Your task to perform on an android device: Open Chrome and go to the settings page Image 0: 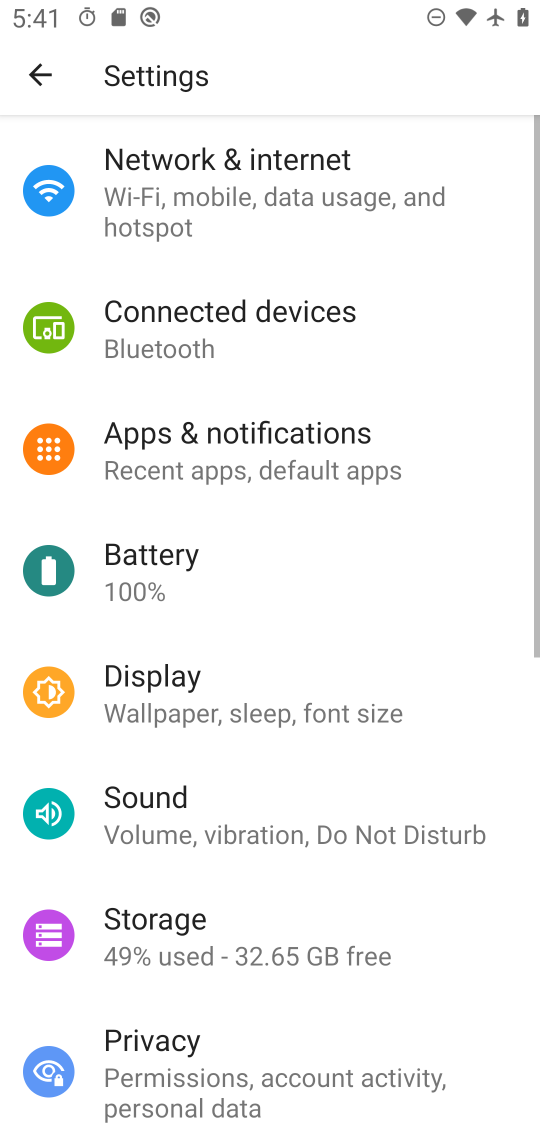
Step 0: press home button
Your task to perform on an android device: Open Chrome and go to the settings page Image 1: 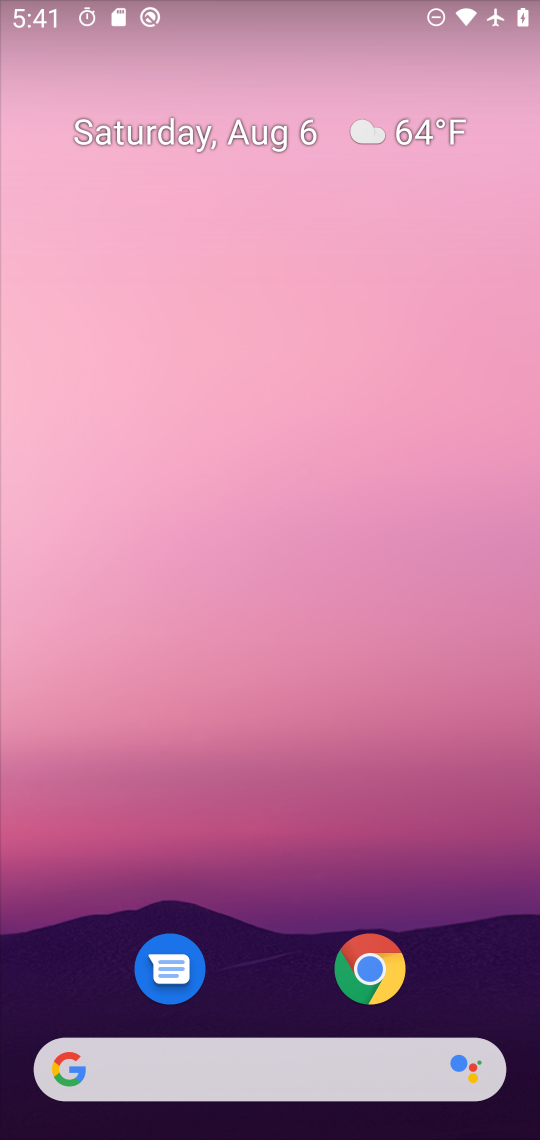
Step 1: drag from (305, 985) to (451, 384)
Your task to perform on an android device: Open Chrome and go to the settings page Image 2: 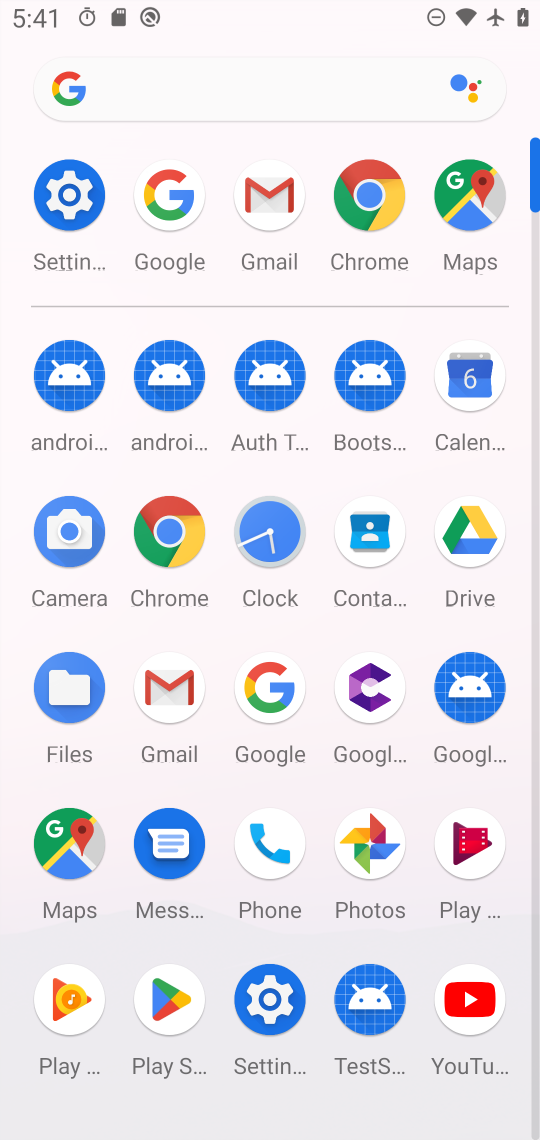
Step 2: click (369, 197)
Your task to perform on an android device: Open Chrome and go to the settings page Image 3: 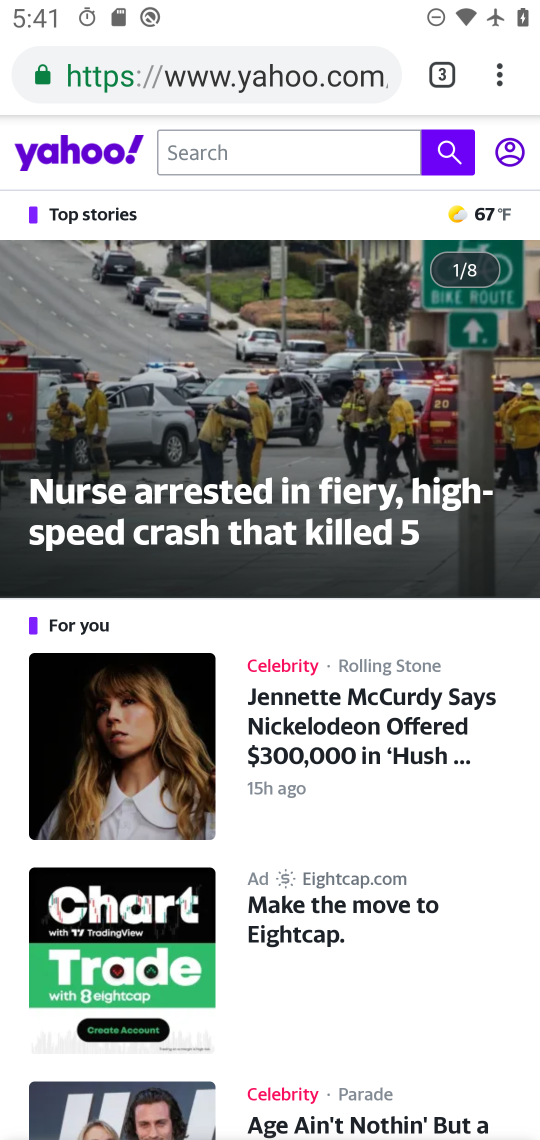
Step 3: task complete